Your task to perform on an android device: Open my contact list Image 0: 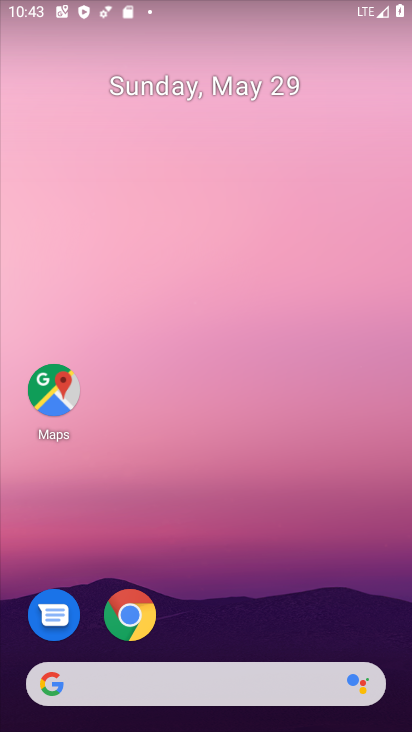
Step 0: drag from (379, 625) to (375, 256)
Your task to perform on an android device: Open my contact list Image 1: 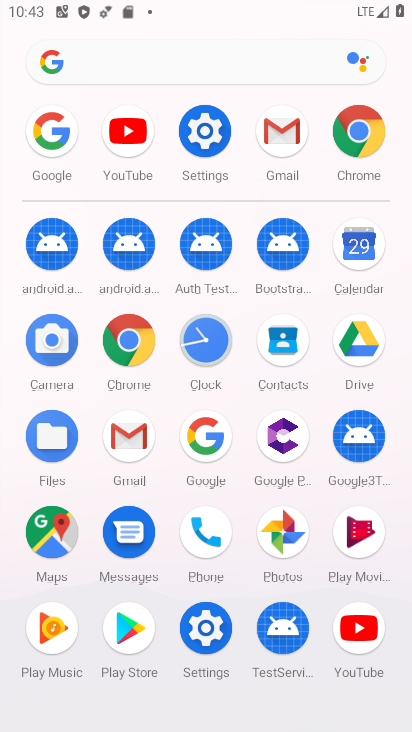
Step 1: click (286, 340)
Your task to perform on an android device: Open my contact list Image 2: 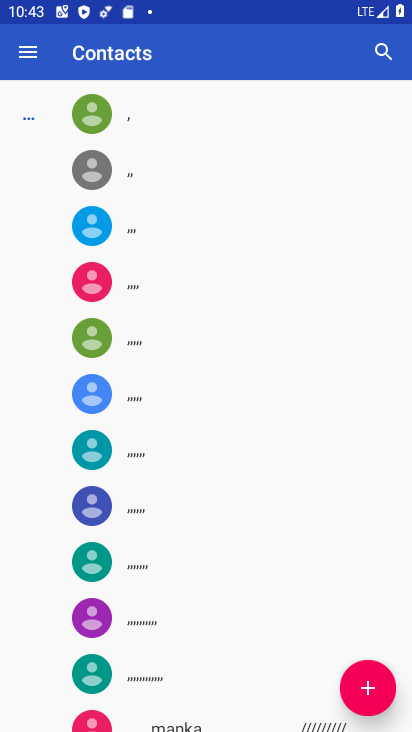
Step 2: task complete